Your task to perform on an android device: When is my next appointment? Image 0: 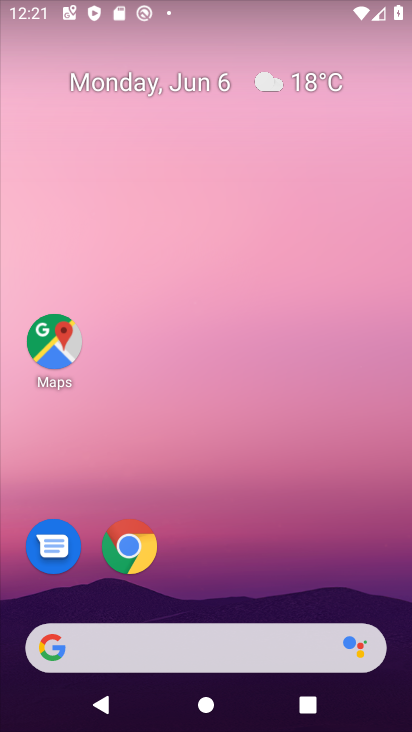
Step 0: drag from (277, 576) to (263, 128)
Your task to perform on an android device: When is my next appointment? Image 1: 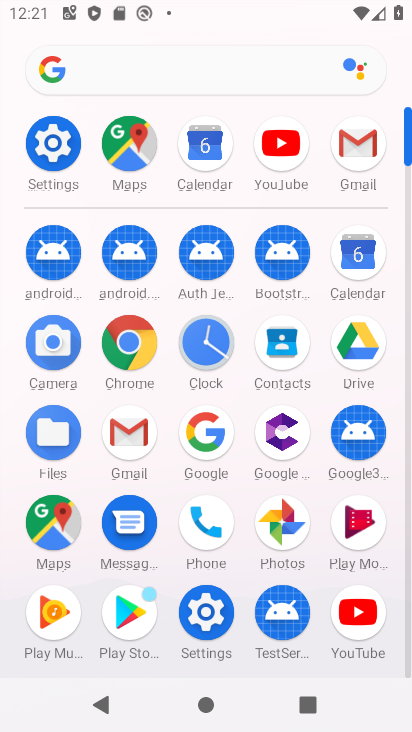
Step 1: click (360, 260)
Your task to perform on an android device: When is my next appointment? Image 2: 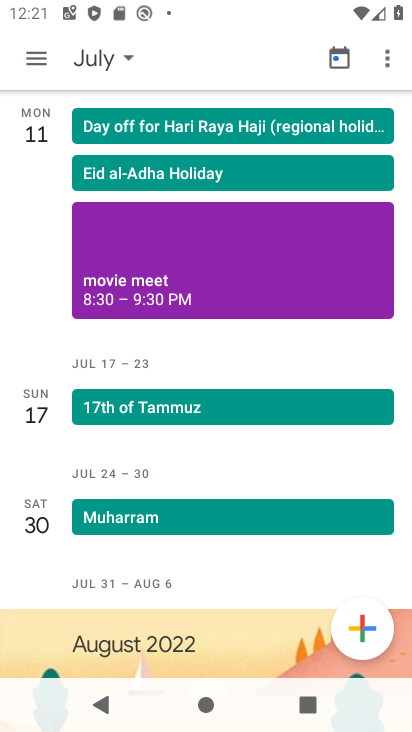
Step 2: drag from (31, 206) to (54, 103)
Your task to perform on an android device: When is my next appointment? Image 3: 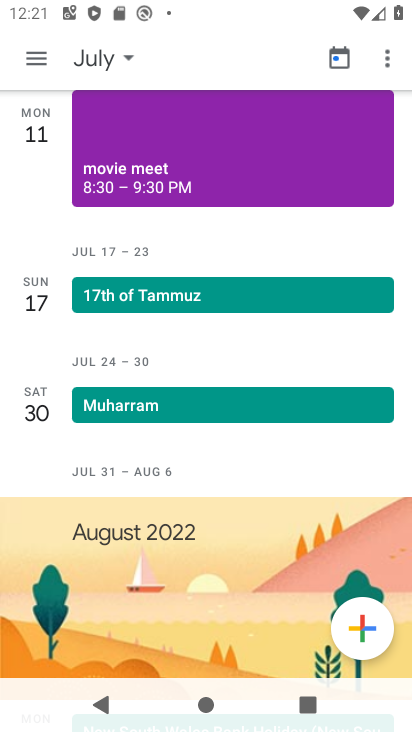
Step 3: click (27, 61)
Your task to perform on an android device: When is my next appointment? Image 4: 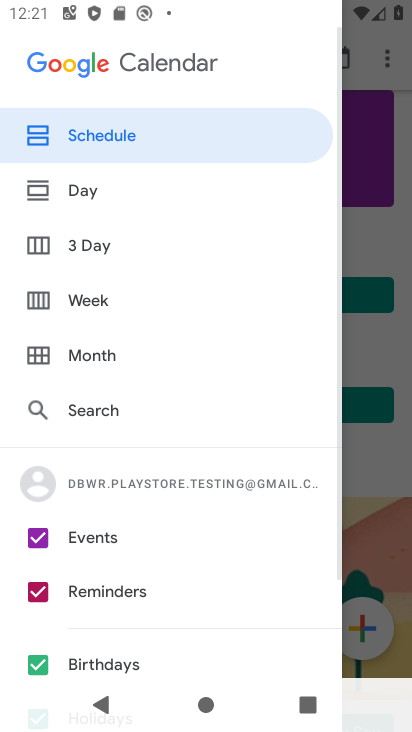
Step 4: click (62, 352)
Your task to perform on an android device: When is my next appointment? Image 5: 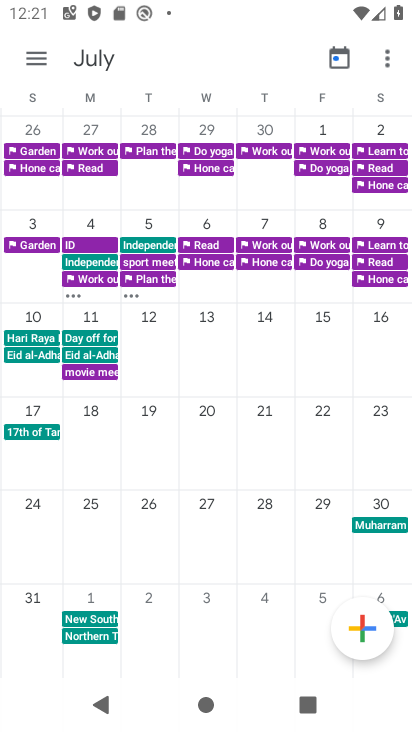
Step 5: drag from (32, 310) to (386, 322)
Your task to perform on an android device: When is my next appointment? Image 6: 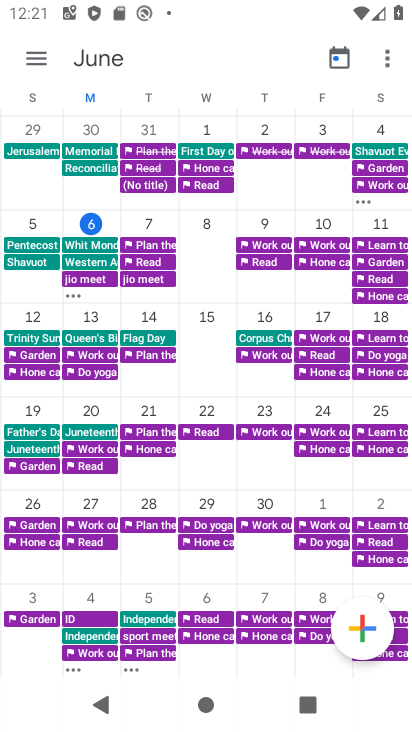
Step 6: click (30, 66)
Your task to perform on an android device: When is my next appointment? Image 7: 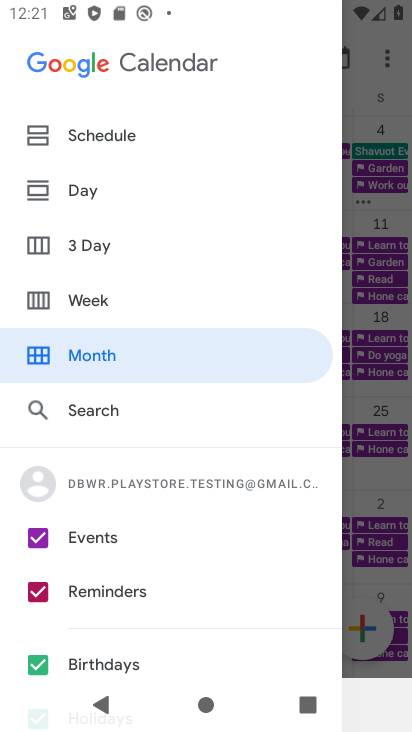
Step 7: click (112, 143)
Your task to perform on an android device: When is my next appointment? Image 8: 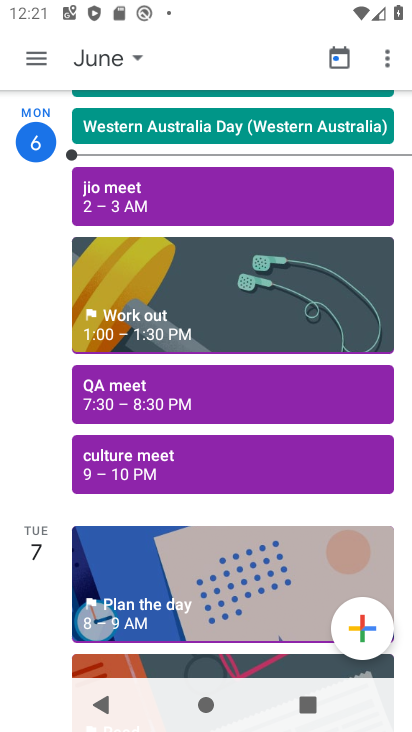
Step 8: task complete